Your task to perform on an android device: Open ESPN.com Image 0: 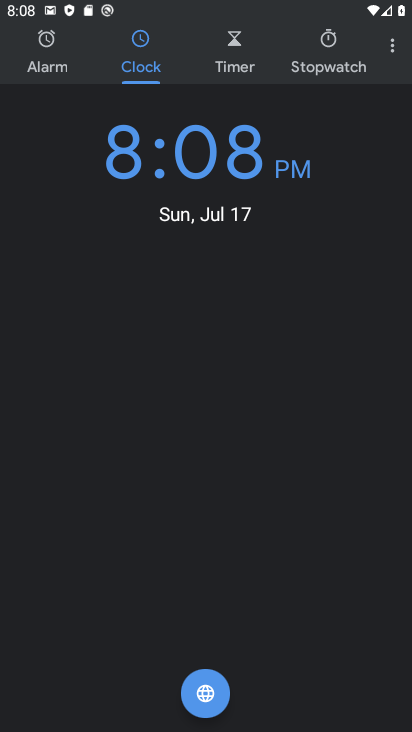
Step 0: press home button
Your task to perform on an android device: Open ESPN.com Image 1: 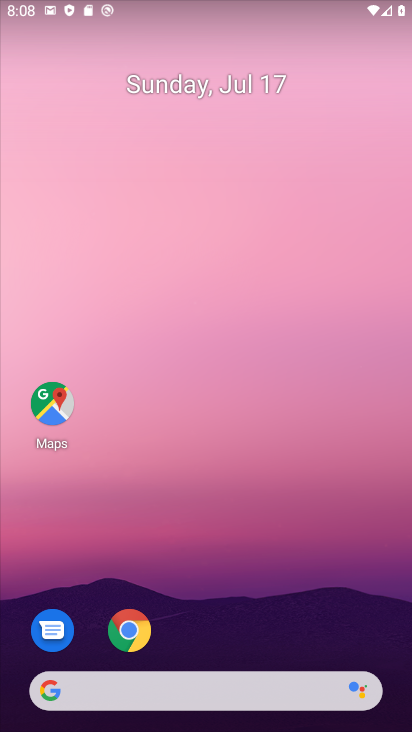
Step 1: click (129, 638)
Your task to perform on an android device: Open ESPN.com Image 2: 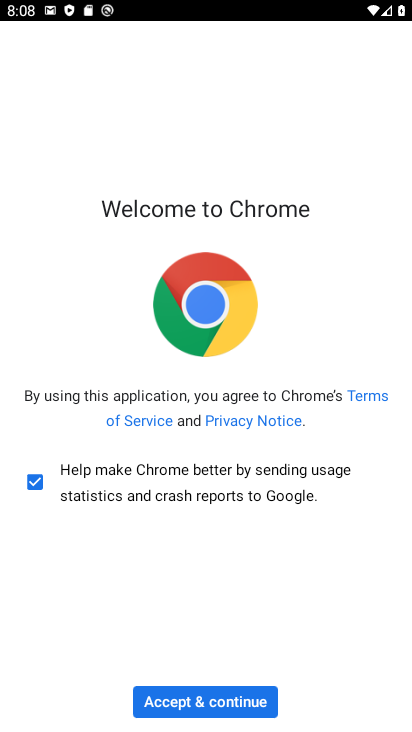
Step 2: click (214, 698)
Your task to perform on an android device: Open ESPN.com Image 3: 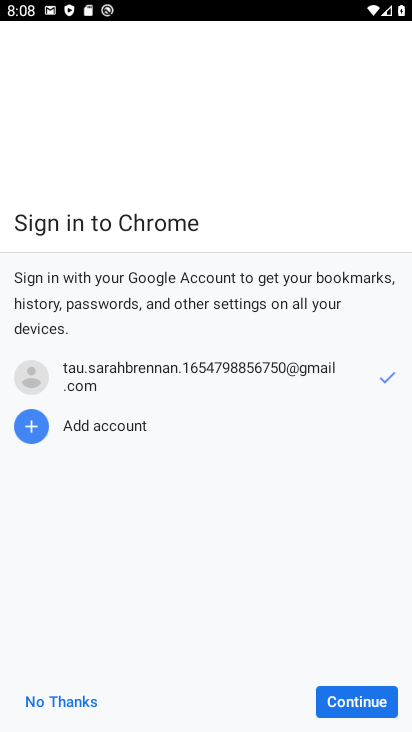
Step 3: click (382, 700)
Your task to perform on an android device: Open ESPN.com Image 4: 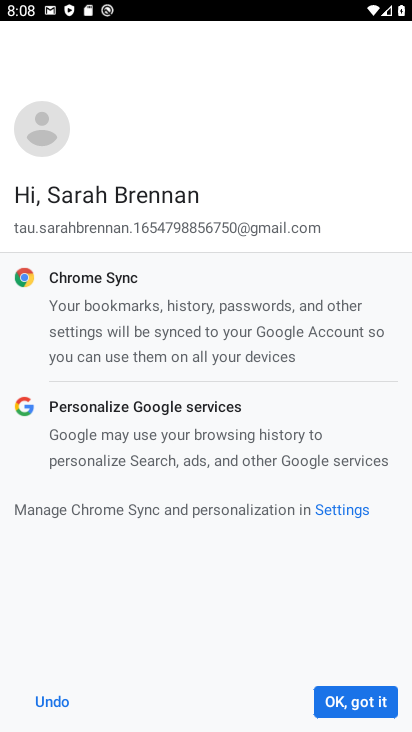
Step 4: click (380, 699)
Your task to perform on an android device: Open ESPN.com Image 5: 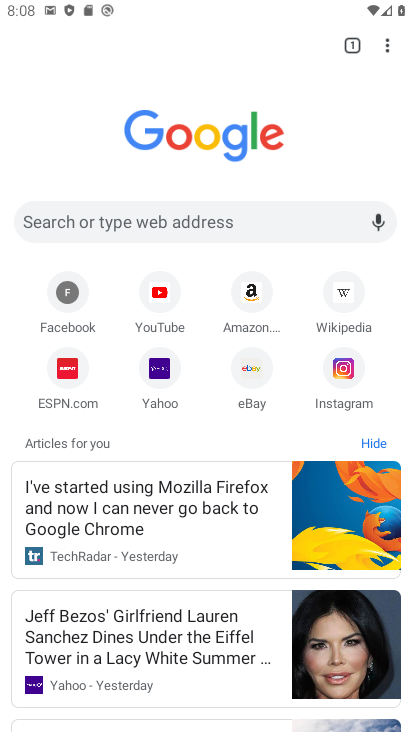
Step 5: click (77, 387)
Your task to perform on an android device: Open ESPN.com Image 6: 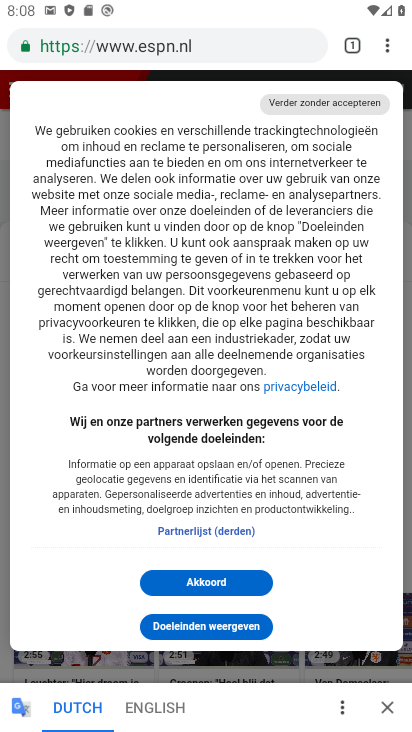
Step 6: task complete